Your task to perform on an android device: change the clock display to show seconds Image 0: 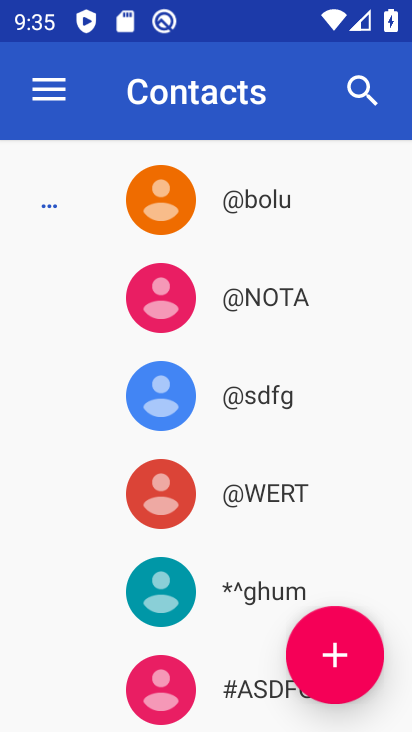
Step 0: press home button
Your task to perform on an android device: change the clock display to show seconds Image 1: 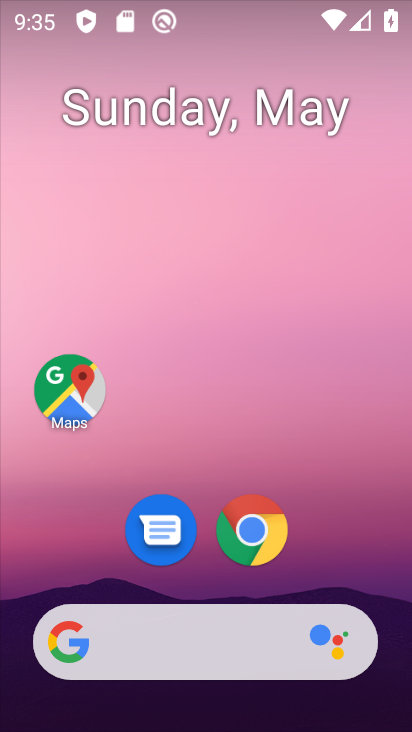
Step 1: drag from (384, 560) to (353, 123)
Your task to perform on an android device: change the clock display to show seconds Image 2: 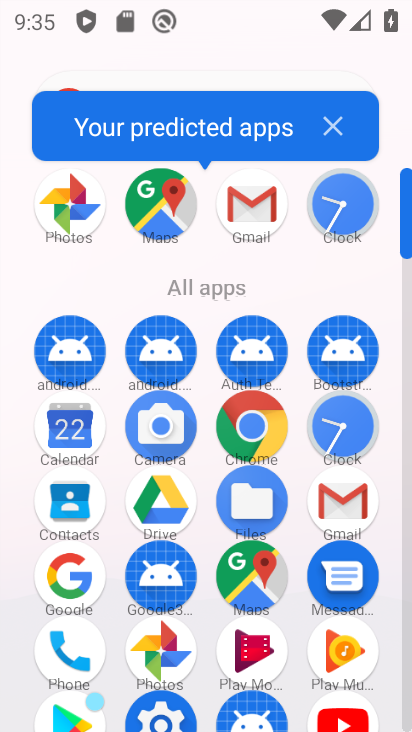
Step 2: click (361, 225)
Your task to perform on an android device: change the clock display to show seconds Image 3: 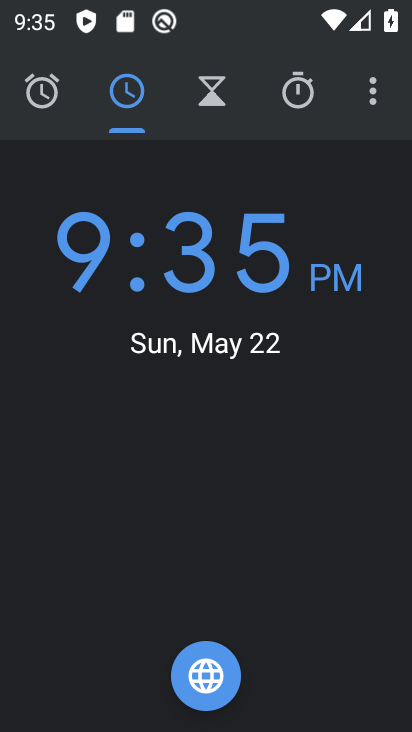
Step 3: click (379, 109)
Your task to perform on an android device: change the clock display to show seconds Image 4: 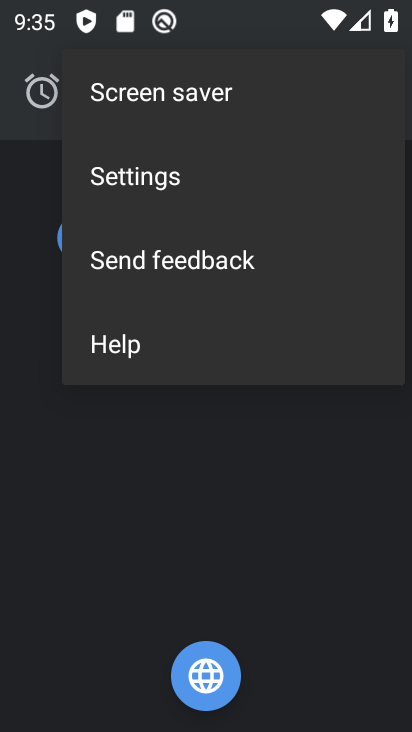
Step 4: click (321, 182)
Your task to perform on an android device: change the clock display to show seconds Image 5: 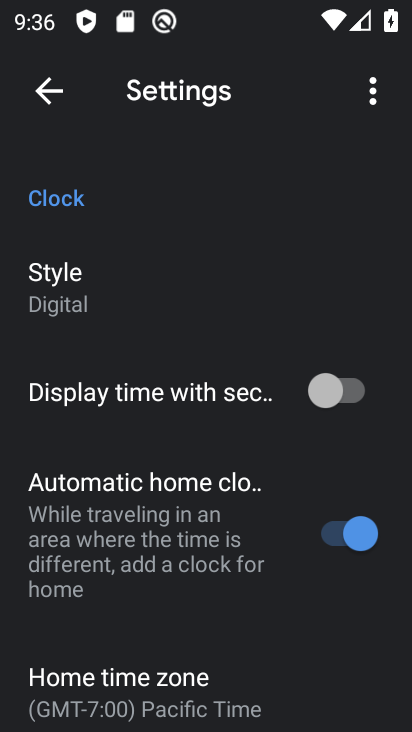
Step 5: click (352, 402)
Your task to perform on an android device: change the clock display to show seconds Image 6: 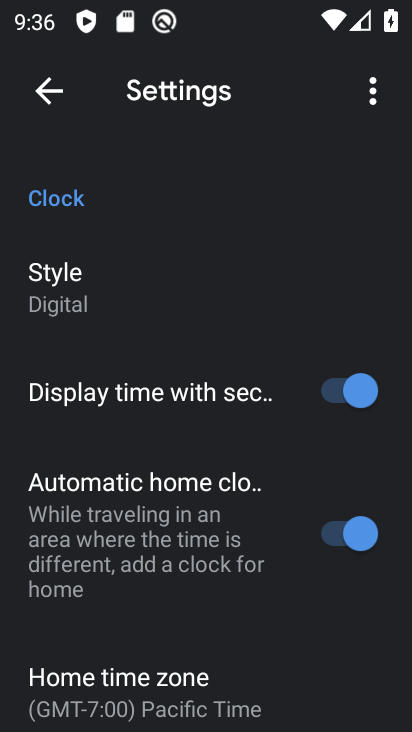
Step 6: task complete